Your task to perform on an android device: change notifications settings Image 0: 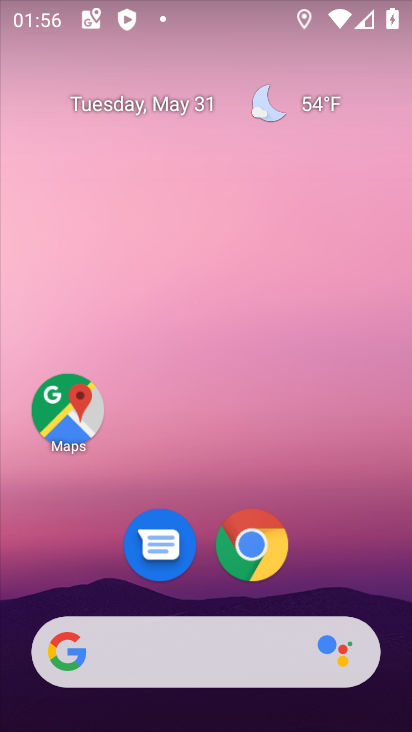
Step 0: drag from (376, 501) to (356, 11)
Your task to perform on an android device: change notifications settings Image 1: 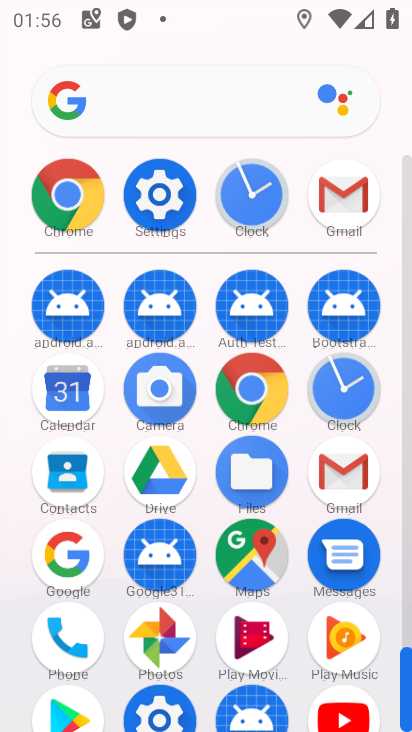
Step 1: click (152, 174)
Your task to perform on an android device: change notifications settings Image 2: 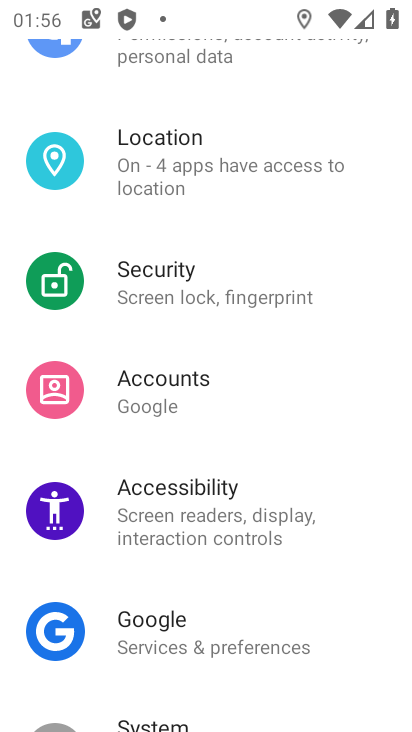
Step 2: drag from (180, 301) to (110, 637)
Your task to perform on an android device: change notifications settings Image 3: 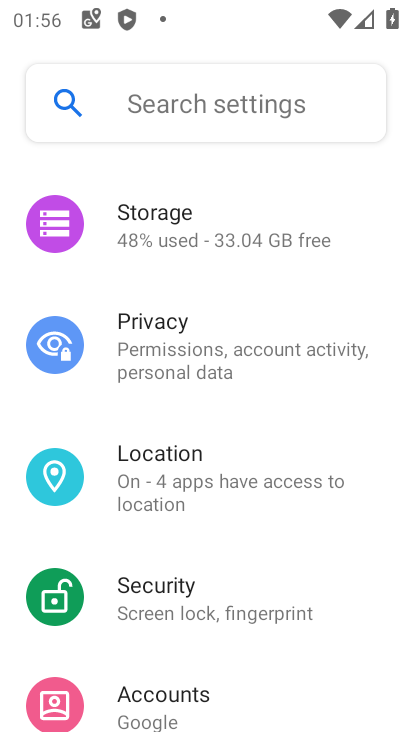
Step 3: drag from (277, 336) to (218, 692)
Your task to perform on an android device: change notifications settings Image 4: 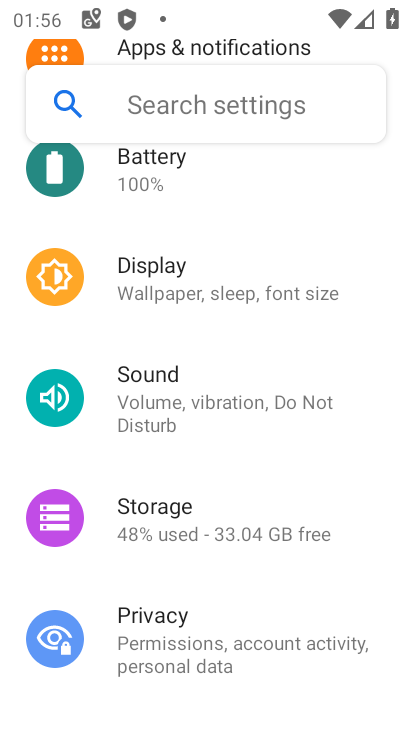
Step 4: drag from (211, 157) to (145, 472)
Your task to perform on an android device: change notifications settings Image 5: 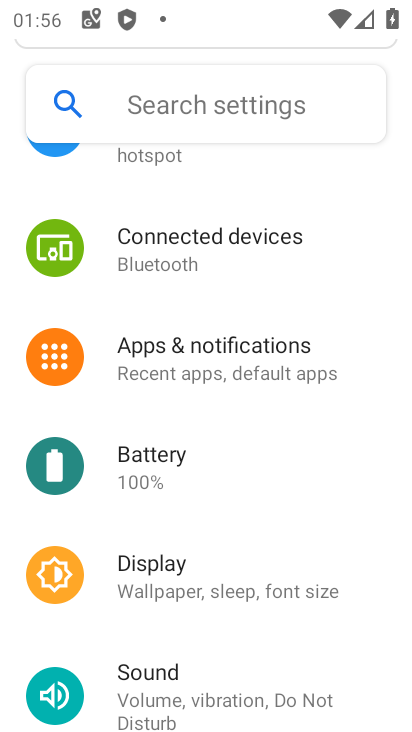
Step 5: click (123, 372)
Your task to perform on an android device: change notifications settings Image 6: 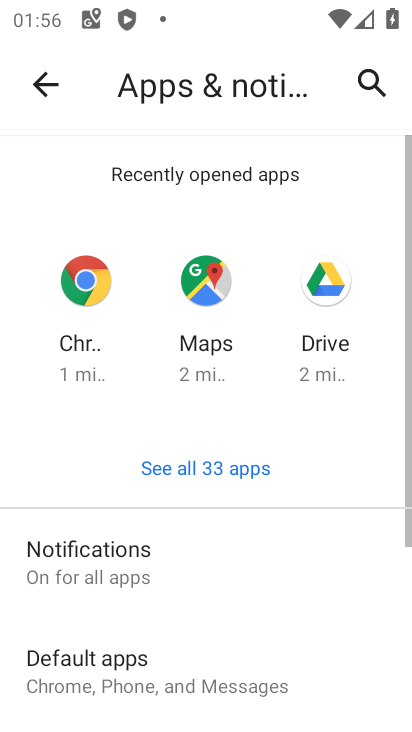
Step 6: drag from (234, 624) to (206, 327)
Your task to perform on an android device: change notifications settings Image 7: 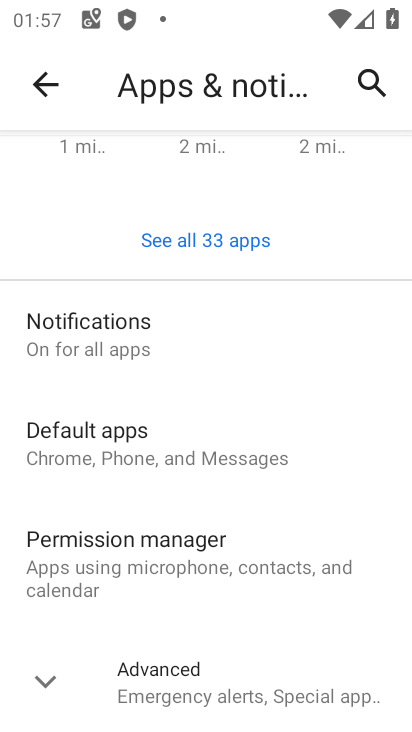
Step 7: click (172, 319)
Your task to perform on an android device: change notifications settings Image 8: 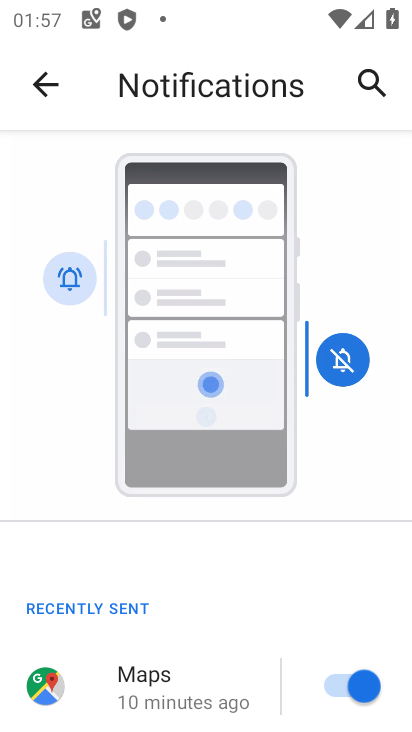
Step 8: drag from (244, 645) to (261, 250)
Your task to perform on an android device: change notifications settings Image 9: 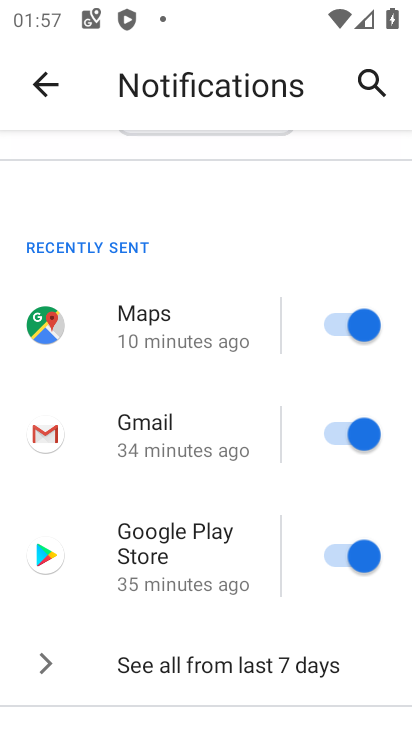
Step 9: drag from (258, 716) to (258, 107)
Your task to perform on an android device: change notifications settings Image 10: 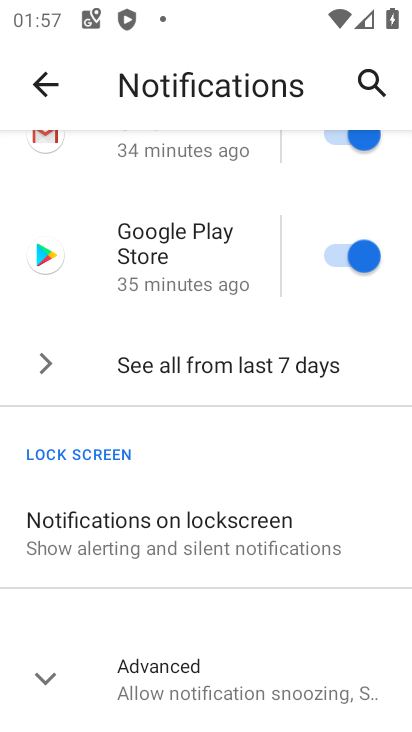
Step 10: drag from (227, 621) to (229, 453)
Your task to perform on an android device: change notifications settings Image 11: 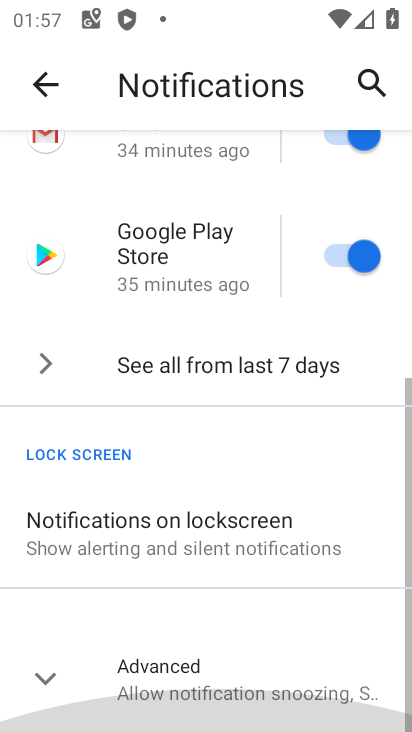
Step 11: click (229, 453)
Your task to perform on an android device: change notifications settings Image 12: 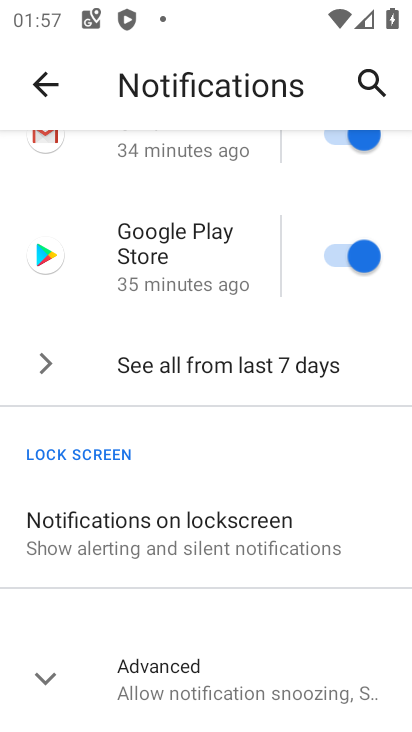
Step 12: click (212, 677)
Your task to perform on an android device: change notifications settings Image 13: 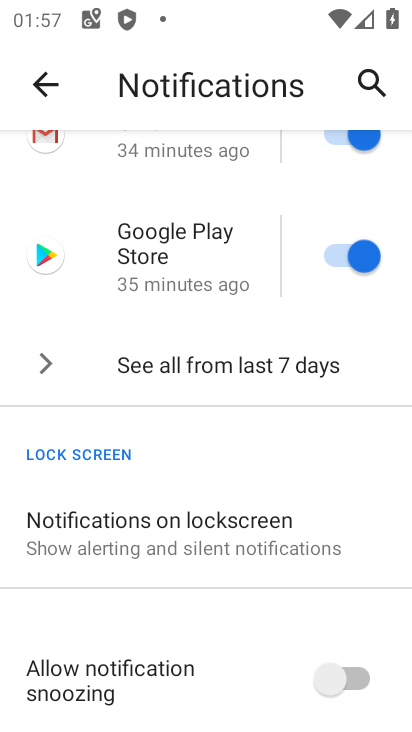
Step 13: drag from (211, 677) to (218, 469)
Your task to perform on an android device: change notifications settings Image 14: 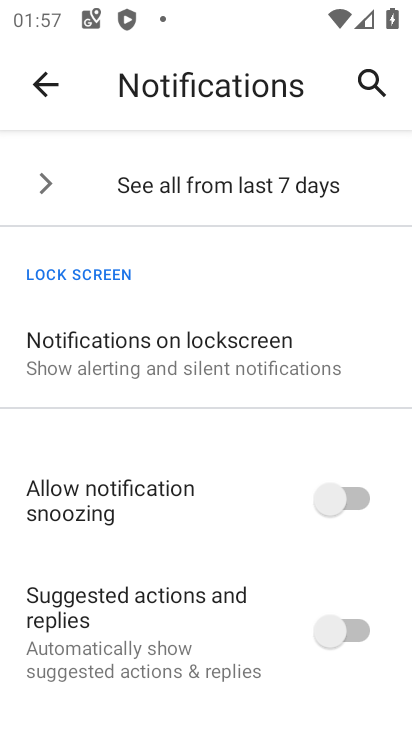
Step 14: drag from (286, 640) to (307, 455)
Your task to perform on an android device: change notifications settings Image 15: 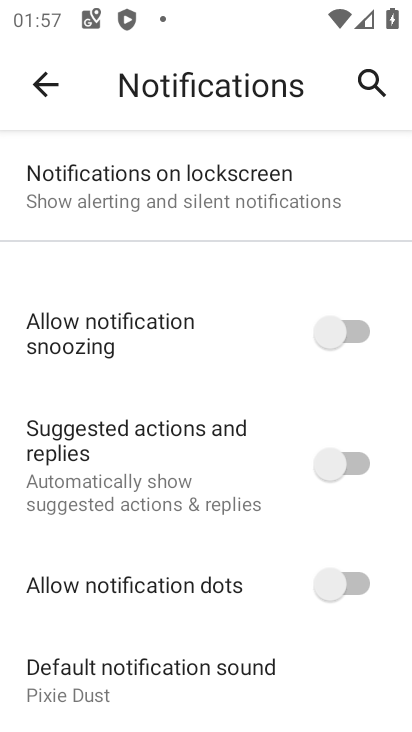
Step 15: click (337, 453)
Your task to perform on an android device: change notifications settings Image 16: 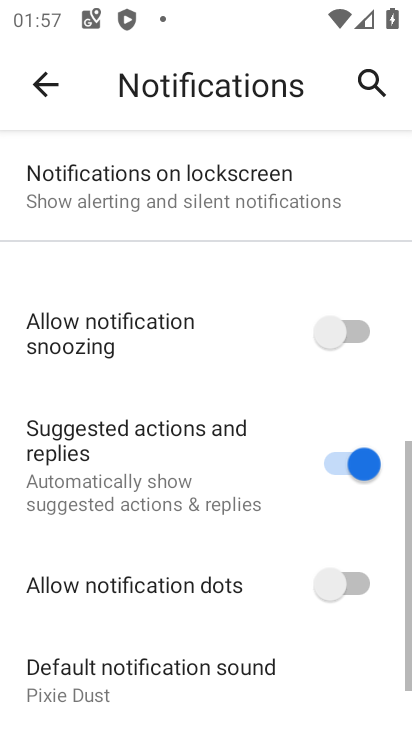
Step 16: click (334, 602)
Your task to perform on an android device: change notifications settings Image 17: 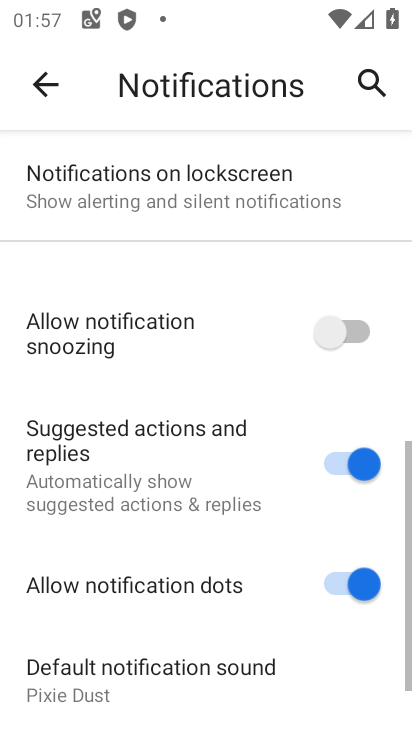
Step 17: task complete